Your task to perform on an android device: Open Maps and search for coffee Image 0: 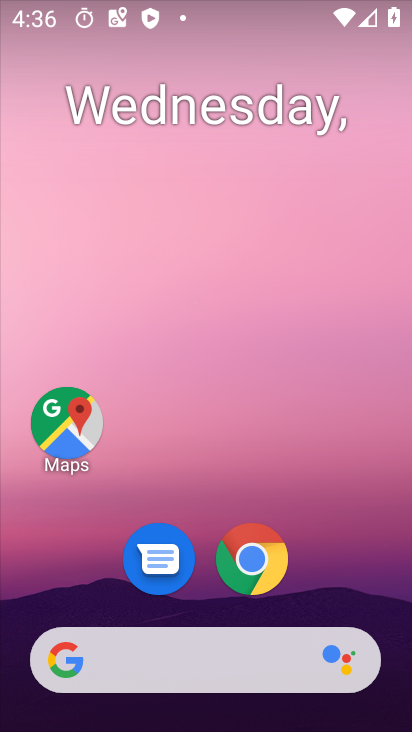
Step 0: click (71, 424)
Your task to perform on an android device: Open Maps and search for coffee Image 1: 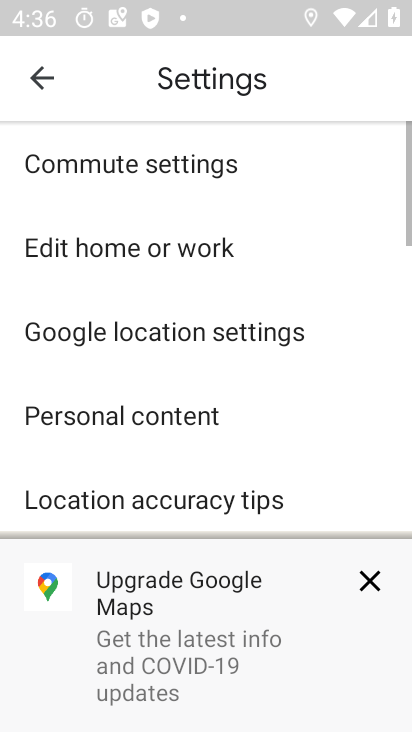
Step 1: click (54, 87)
Your task to perform on an android device: Open Maps and search for coffee Image 2: 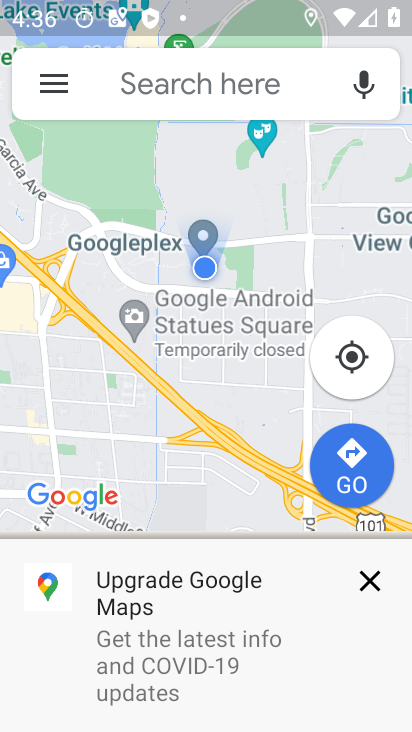
Step 2: click (157, 96)
Your task to perform on an android device: Open Maps and search for coffee Image 3: 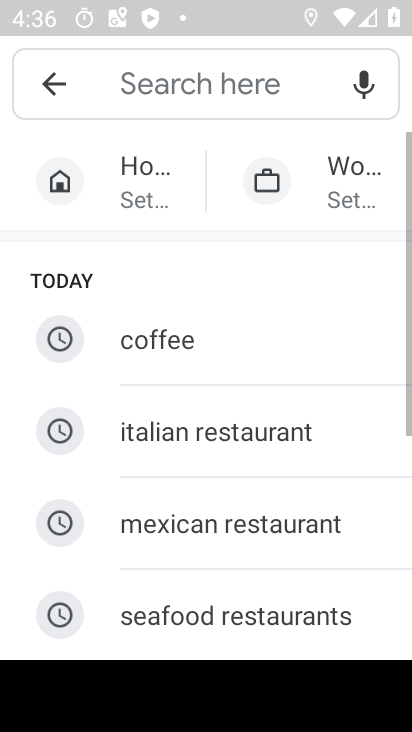
Step 3: click (187, 341)
Your task to perform on an android device: Open Maps and search for coffee Image 4: 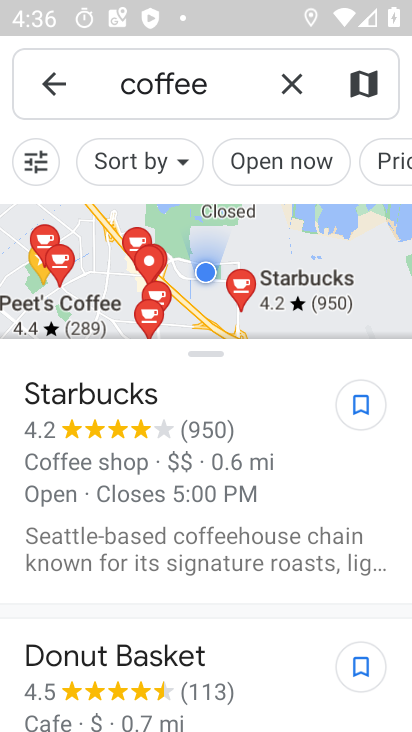
Step 4: task complete